Your task to perform on an android device: install app "PlayWell" Image 0: 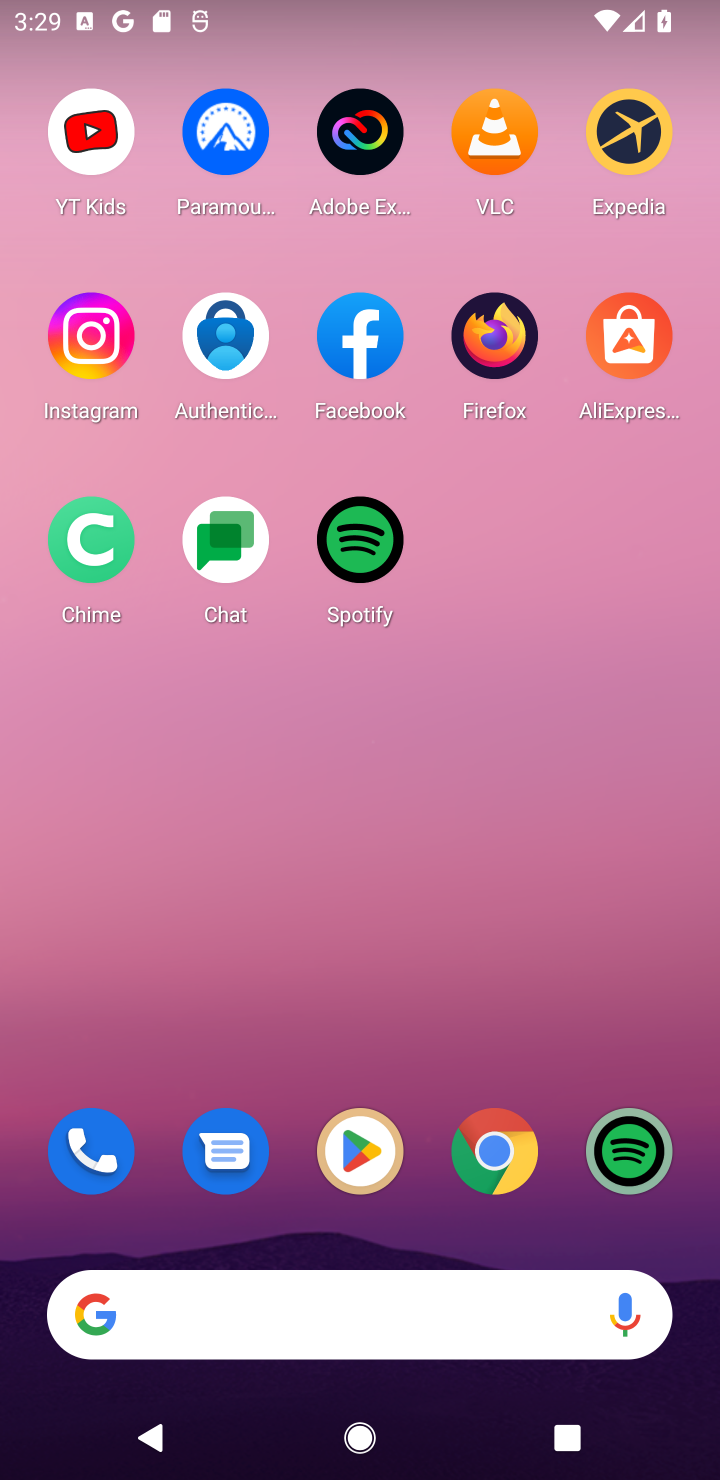
Step 0: press home button
Your task to perform on an android device: install app "PlayWell" Image 1: 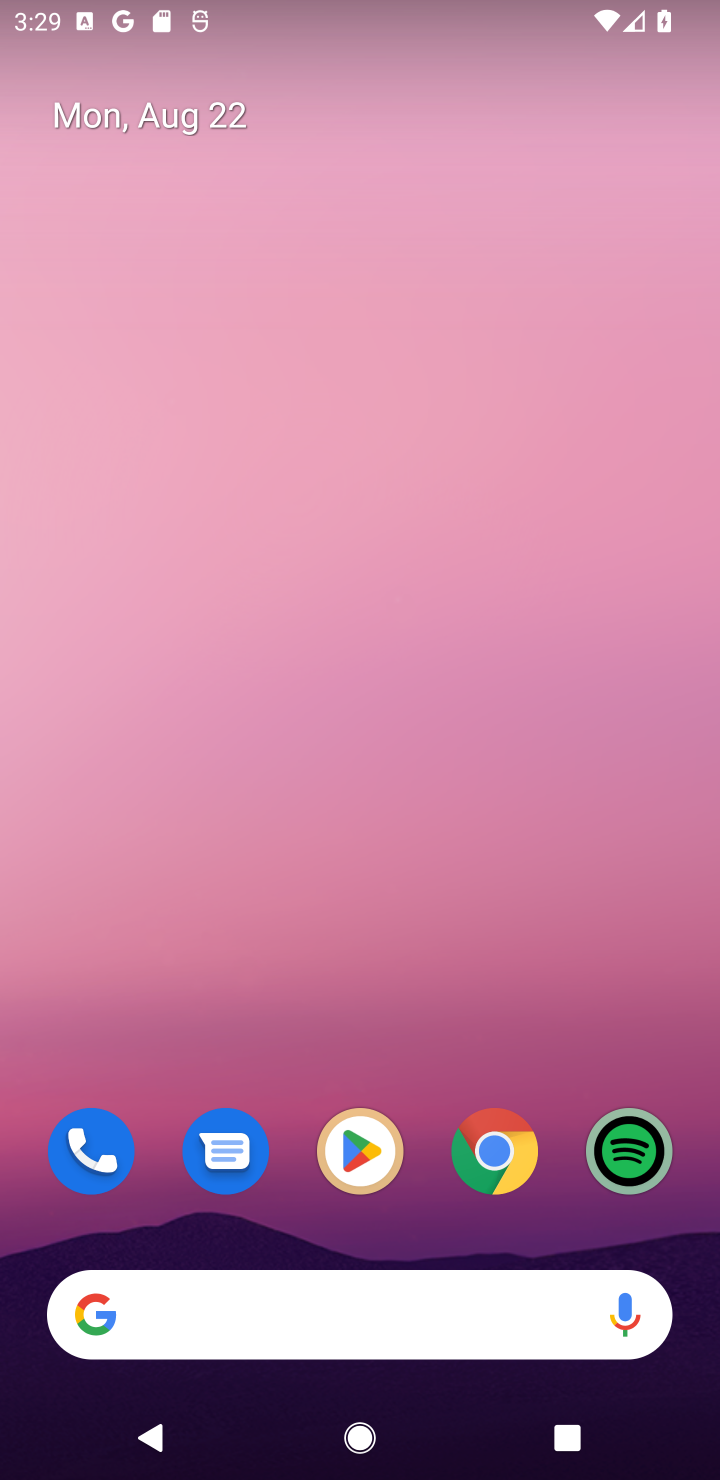
Step 1: click (366, 1163)
Your task to perform on an android device: install app "PlayWell" Image 2: 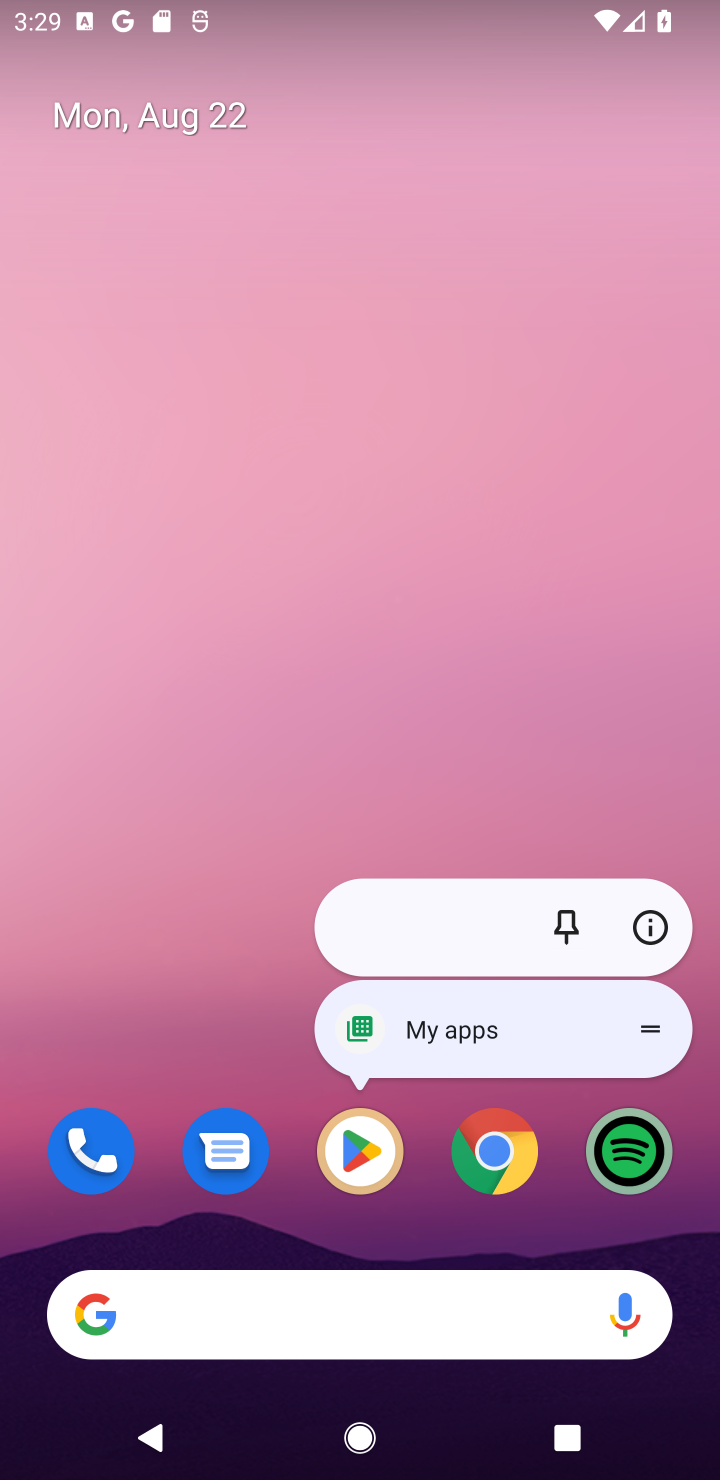
Step 2: click (369, 1168)
Your task to perform on an android device: install app "PlayWell" Image 3: 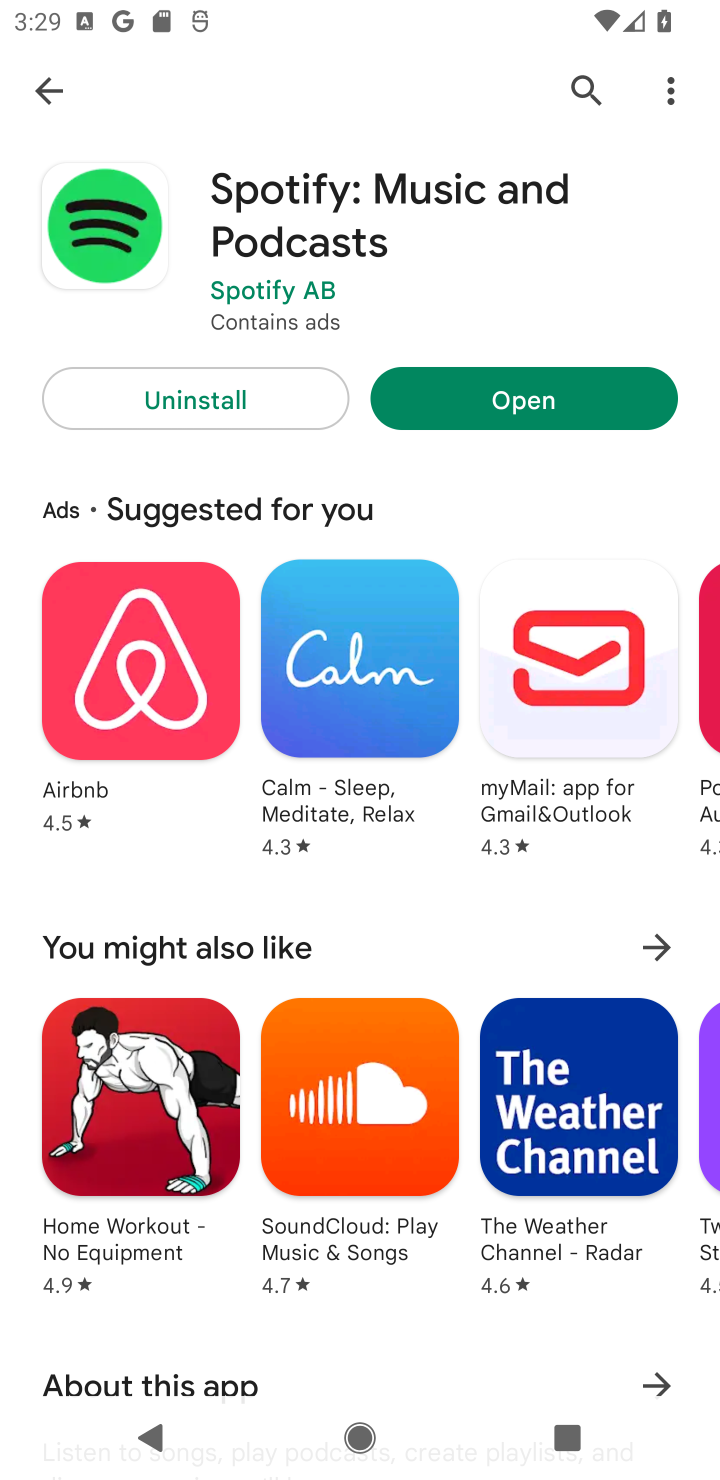
Step 3: click (579, 84)
Your task to perform on an android device: install app "PlayWell" Image 4: 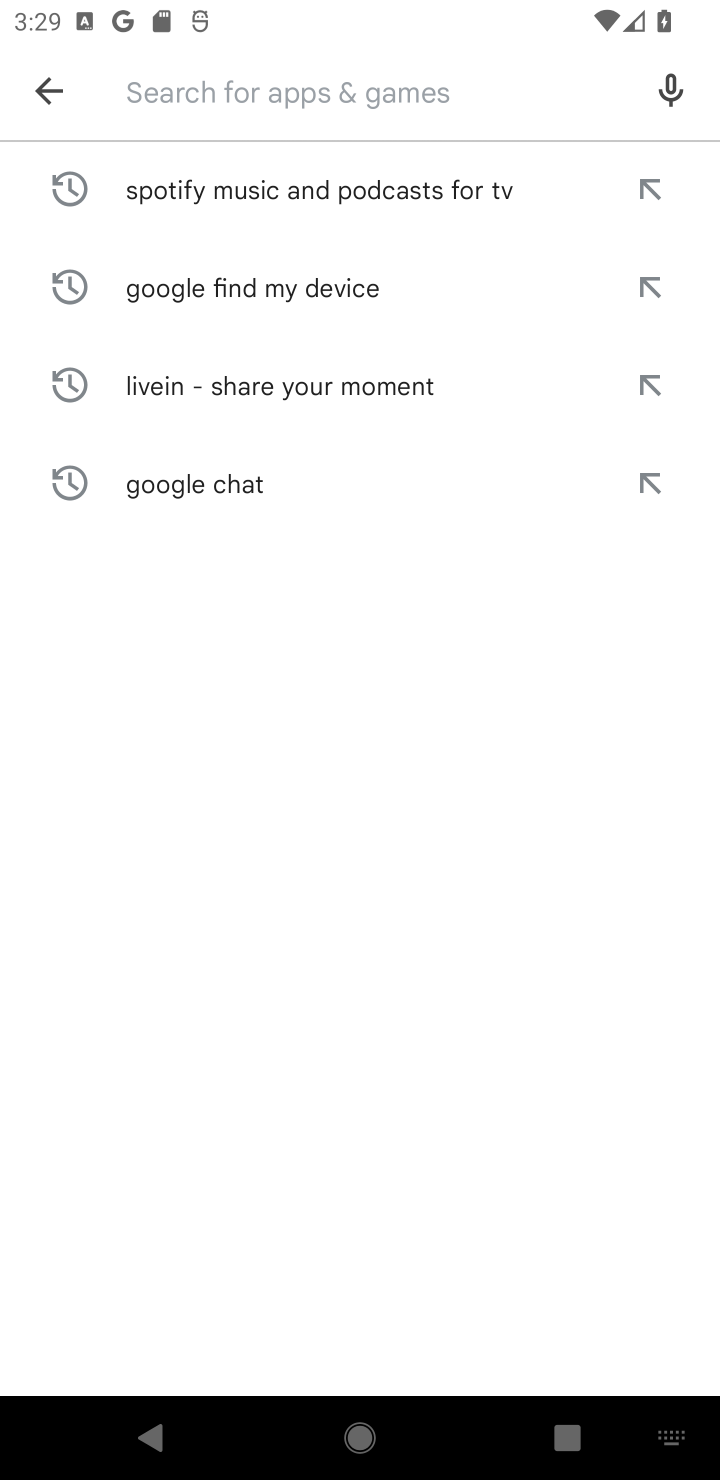
Step 4: type "PlayWell"
Your task to perform on an android device: install app "PlayWell" Image 5: 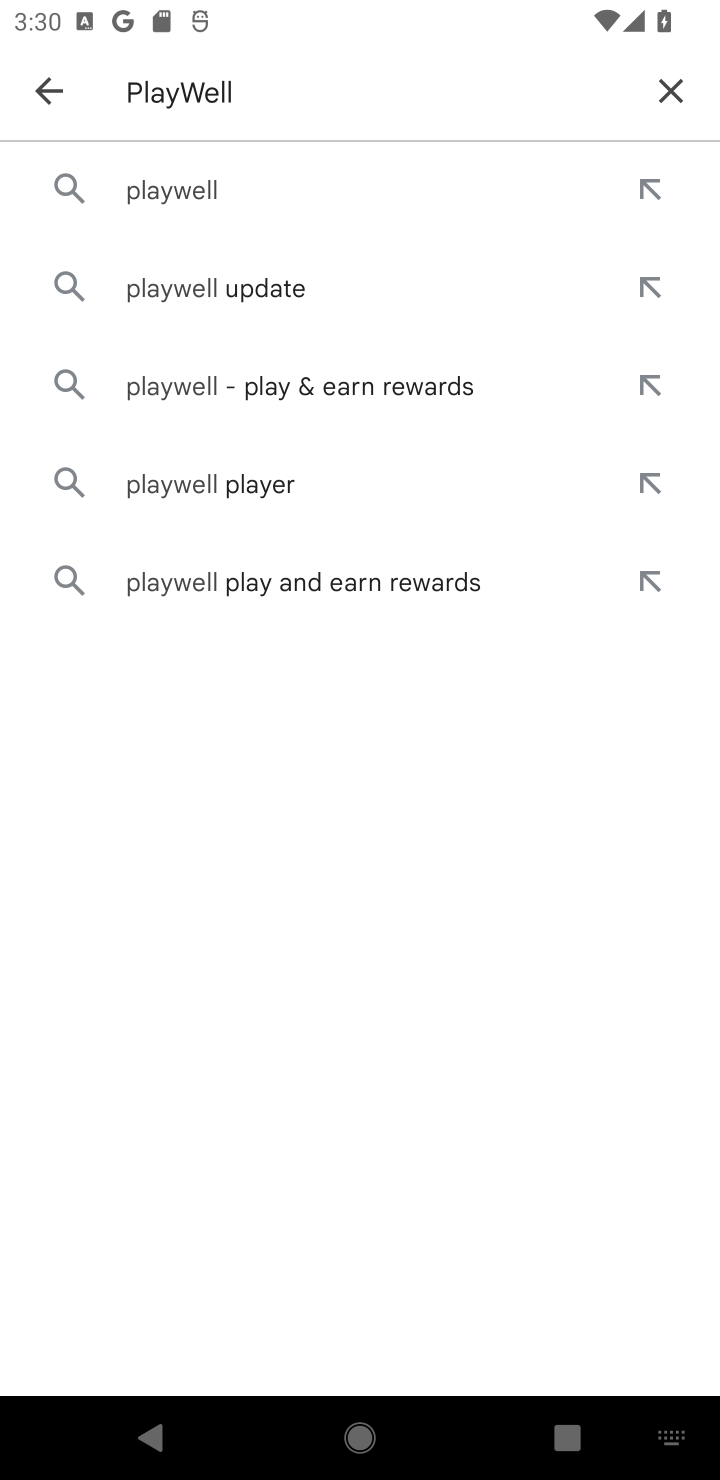
Step 5: click (242, 196)
Your task to perform on an android device: install app "PlayWell" Image 6: 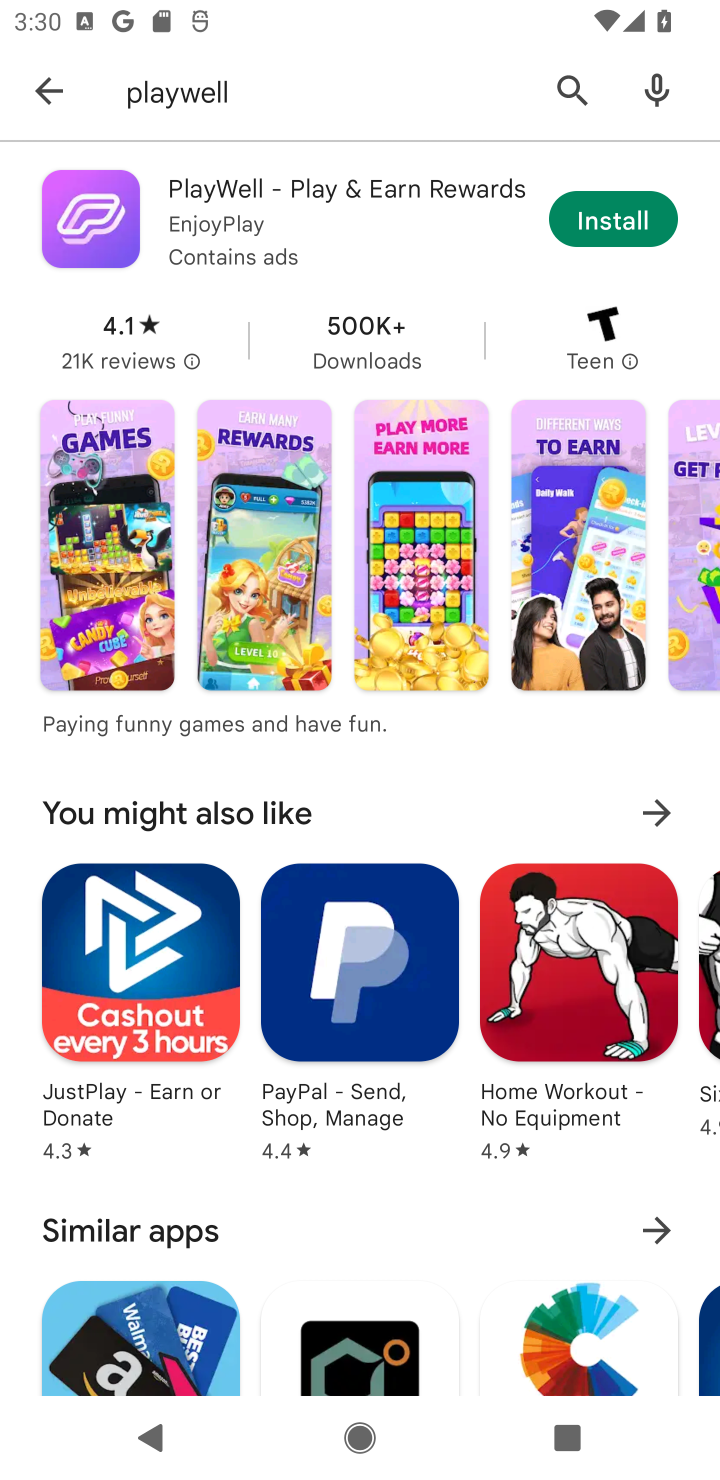
Step 6: click (622, 210)
Your task to perform on an android device: install app "PlayWell" Image 7: 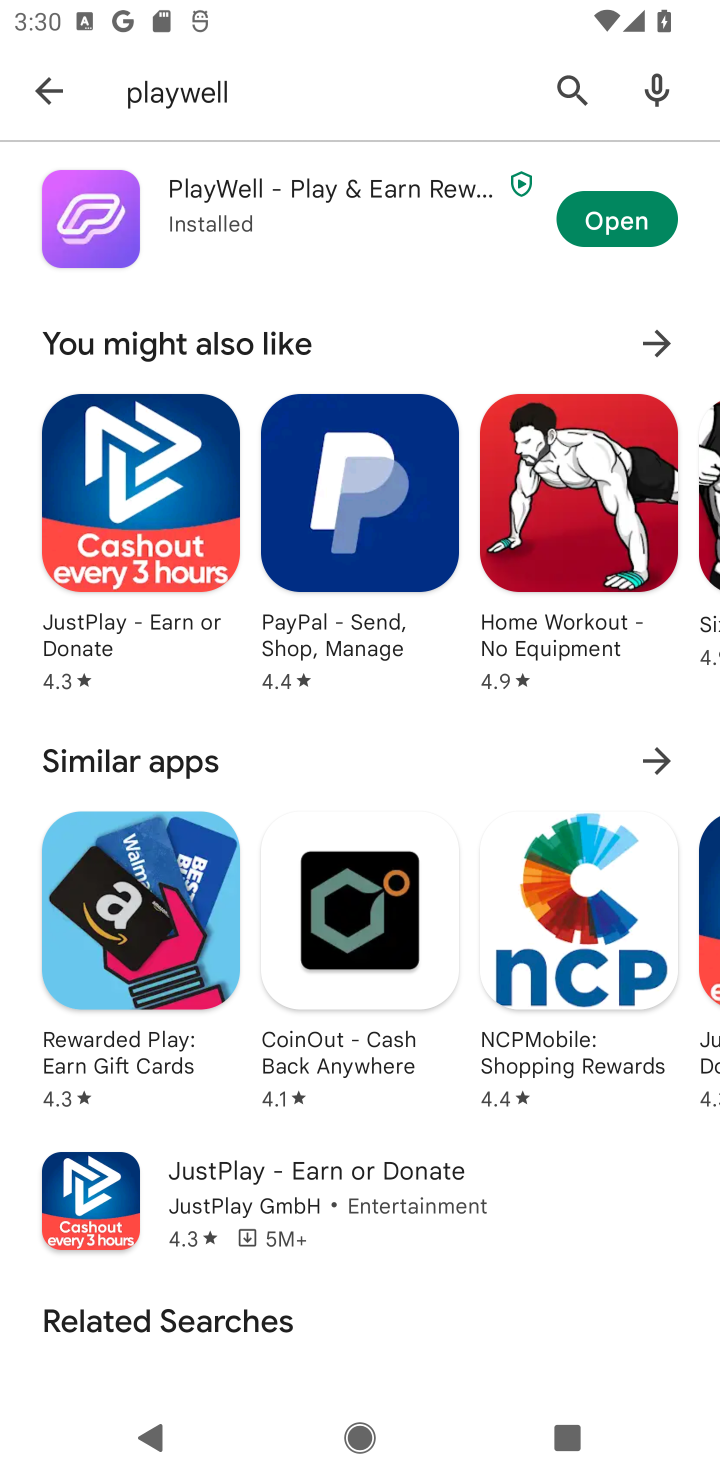
Step 7: task complete